Your task to perform on an android device: change the clock display to show seconds Image 0: 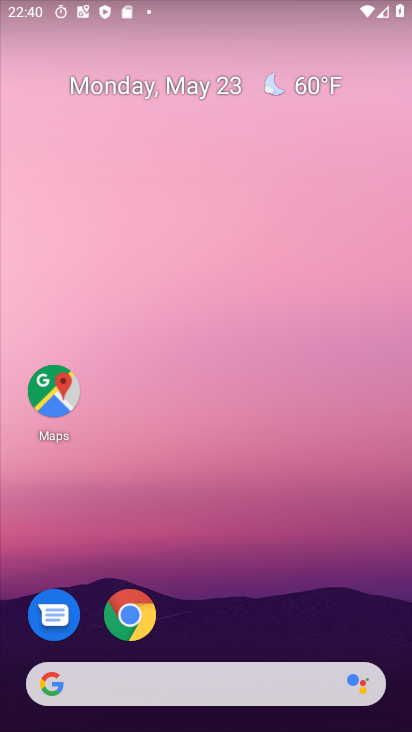
Step 0: drag from (222, 623) to (251, 163)
Your task to perform on an android device: change the clock display to show seconds Image 1: 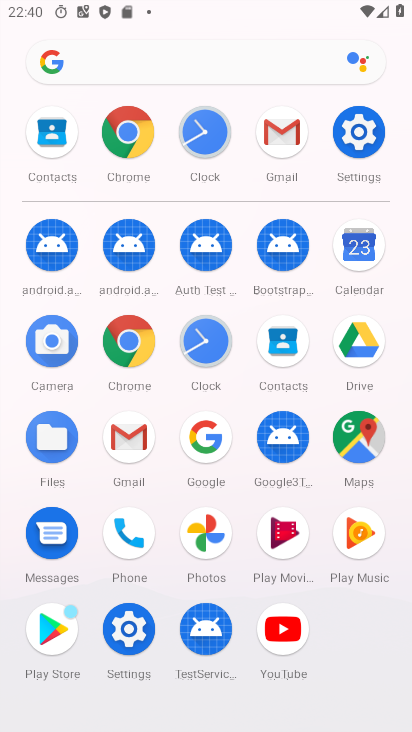
Step 1: click (205, 343)
Your task to perform on an android device: change the clock display to show seconds Image 2: 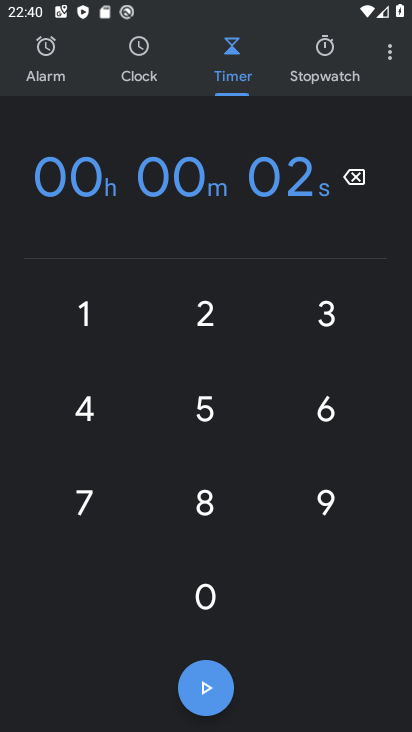
Step 2: click (379, 51)
Your task to perform on an android device: change the clock display to show seconds Image 3: 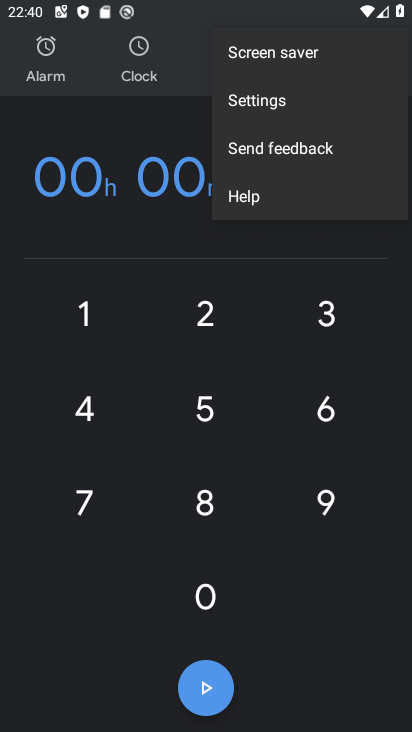
Step 3: click (272, 99)
Your task to perform on an android device: change the clock display to show seconds Image 4: 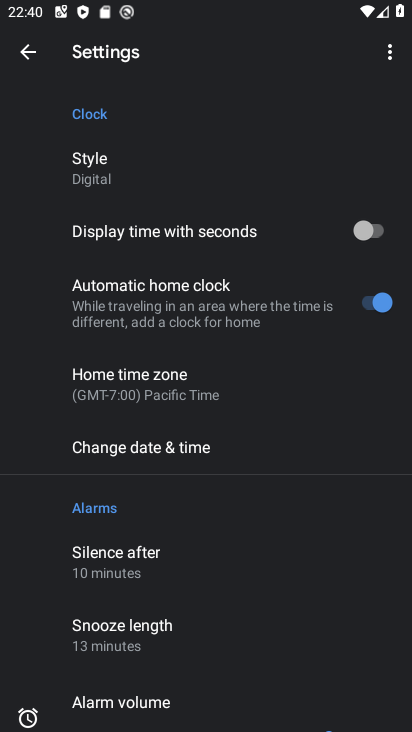
Step 4: click (362, 231)
Your task to perform on an android device: change the clock display to show seconds Image 5: 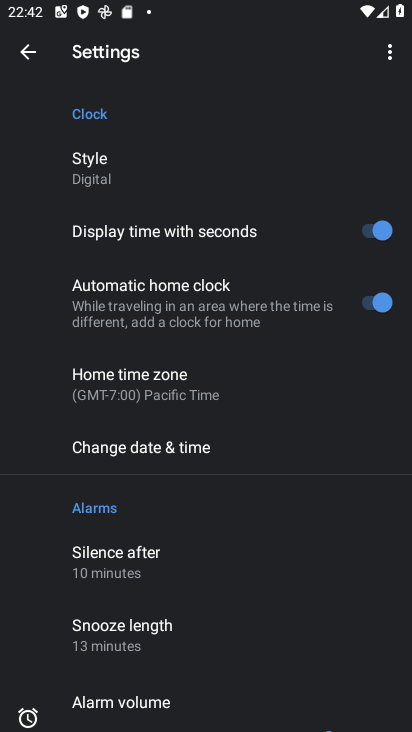
Step 5: task complete